Your task to perform on an android device: set an alarm Image 0: 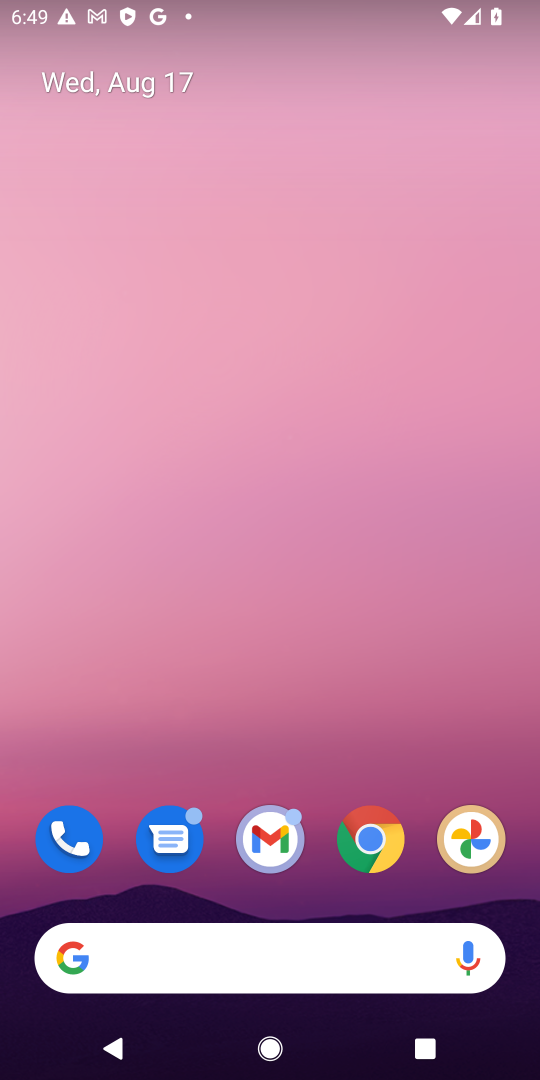
Step 0: click (379, 862)
Your task to perform on an android device: set an alarm Image 1: 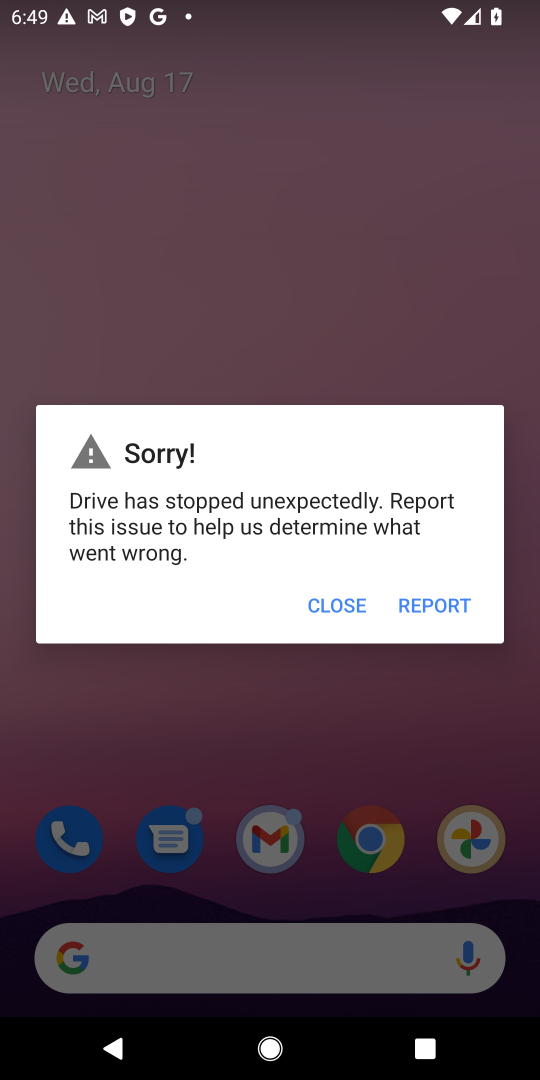
Step 1: click (354, 613)
Your task to perform on an android device: set an alarm Image 2: 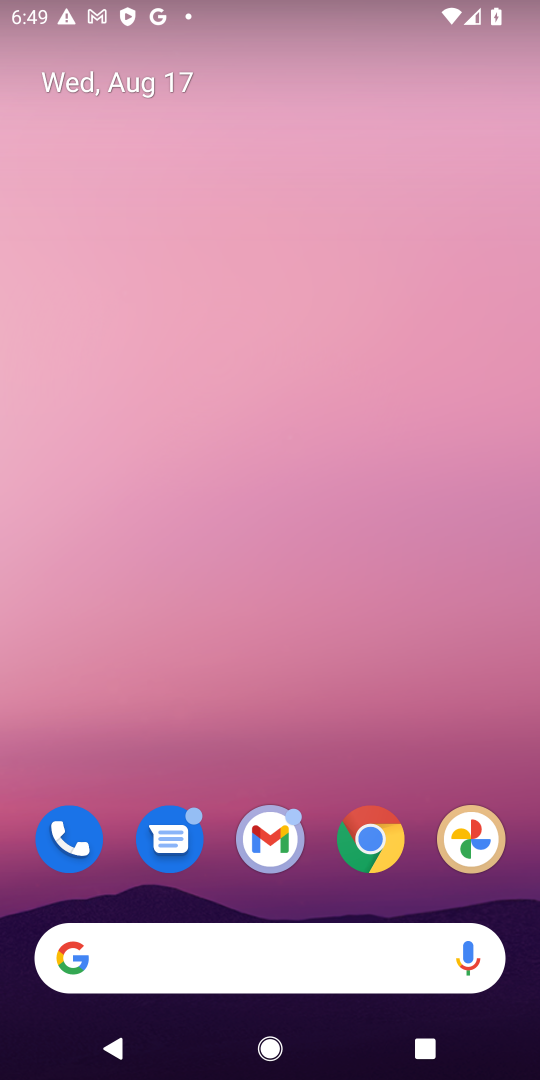
Step 2: drag from (262, 912) to (372, 48)
Your task to perform on an android device: set an alarm Image 3: 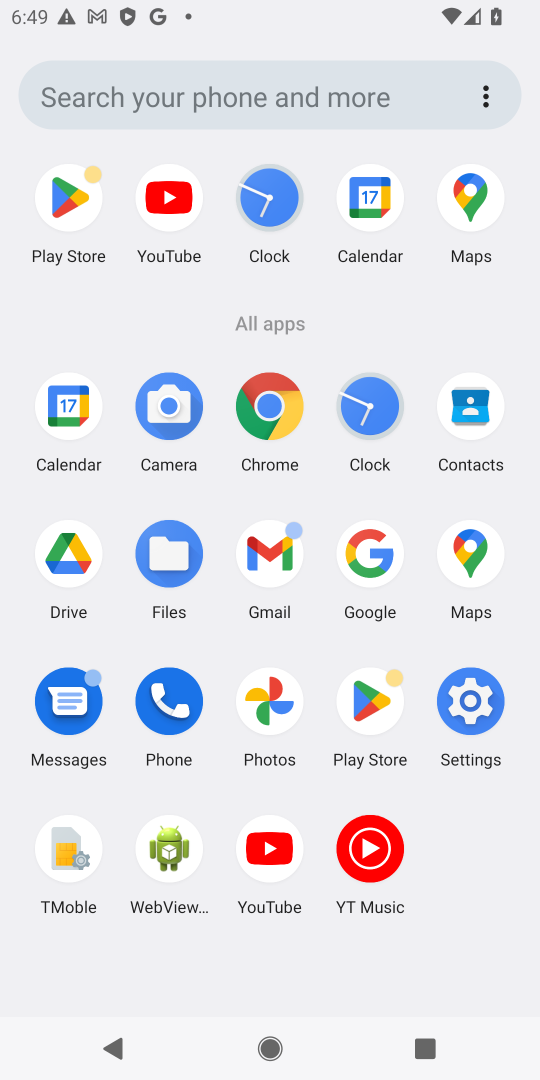
Step 3: click (385, 435)
Your task to perform on an android device: set an alarm Image 4: 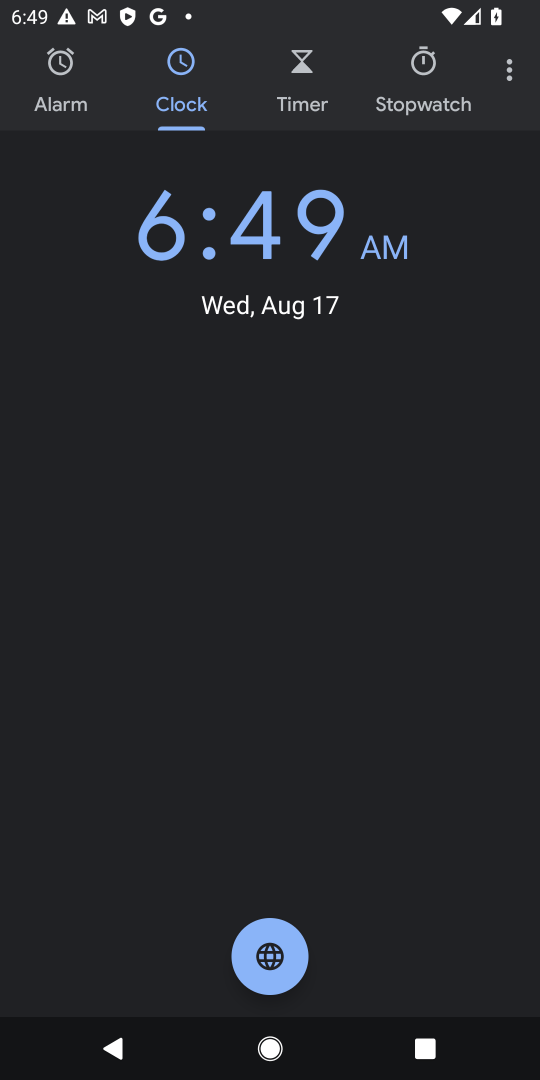
Step 4: click (53, 84)
Your task to perform on an android device: set an alarm Image 5: 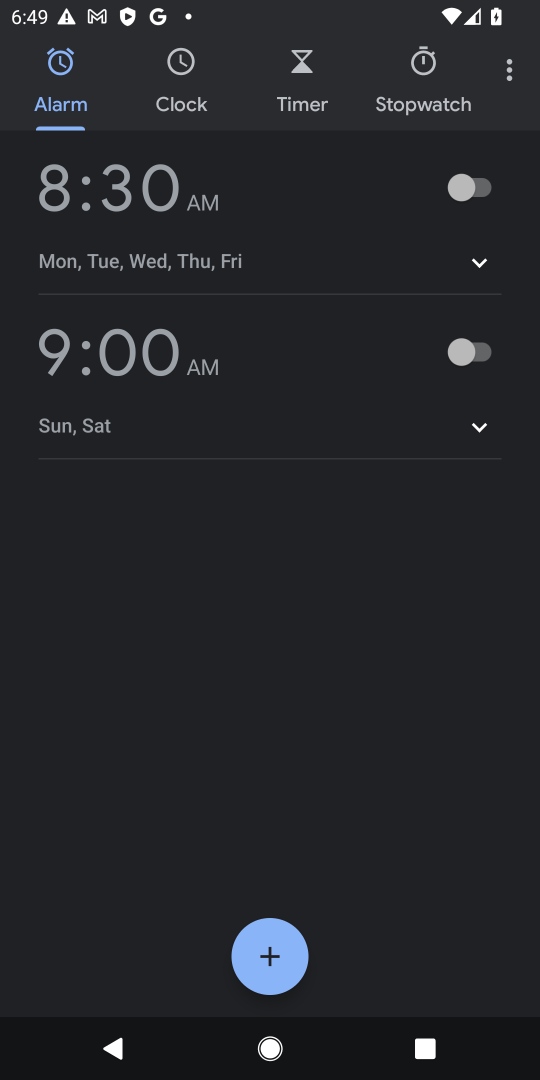
Step 5: click (279, 947)
Your task to perform on an android device: set an alarm Image 6: 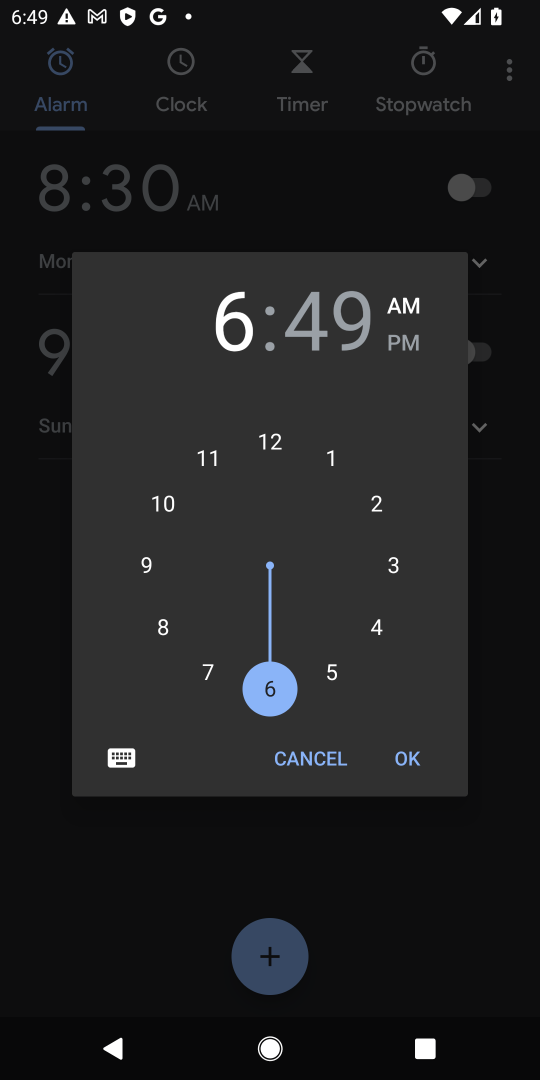
Step 6: click (423, 753)
Your task to perform on an android device: set an alarm Image 7: 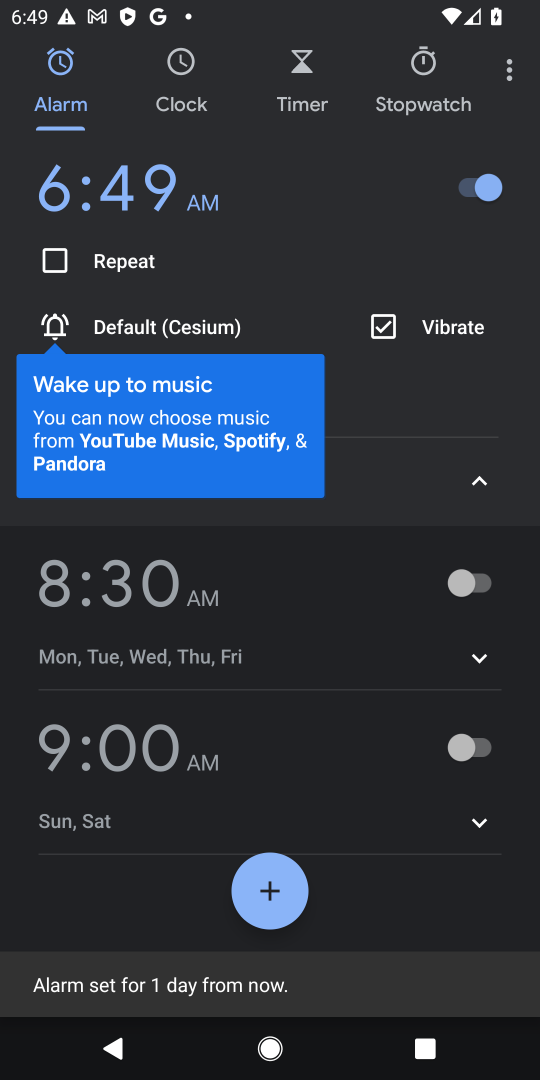
Step 7: task complete